Your task to perform on an android device: turn on sleep mode Image 0: 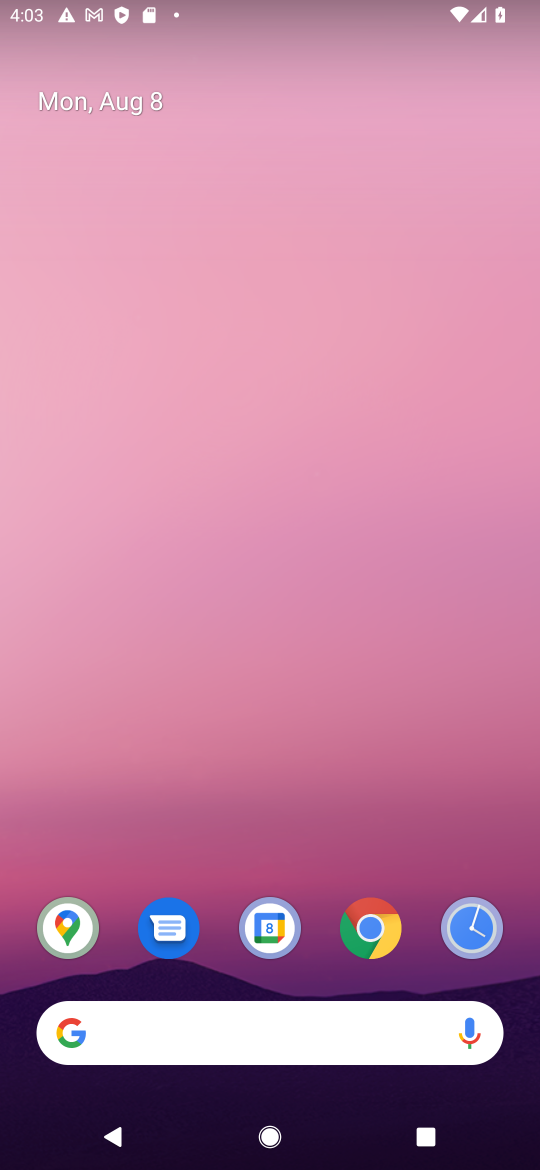
Step 0: drag from (369, 857) to (302, 31)
Your task to perform on an android device: turn on sleep mode Image 1: 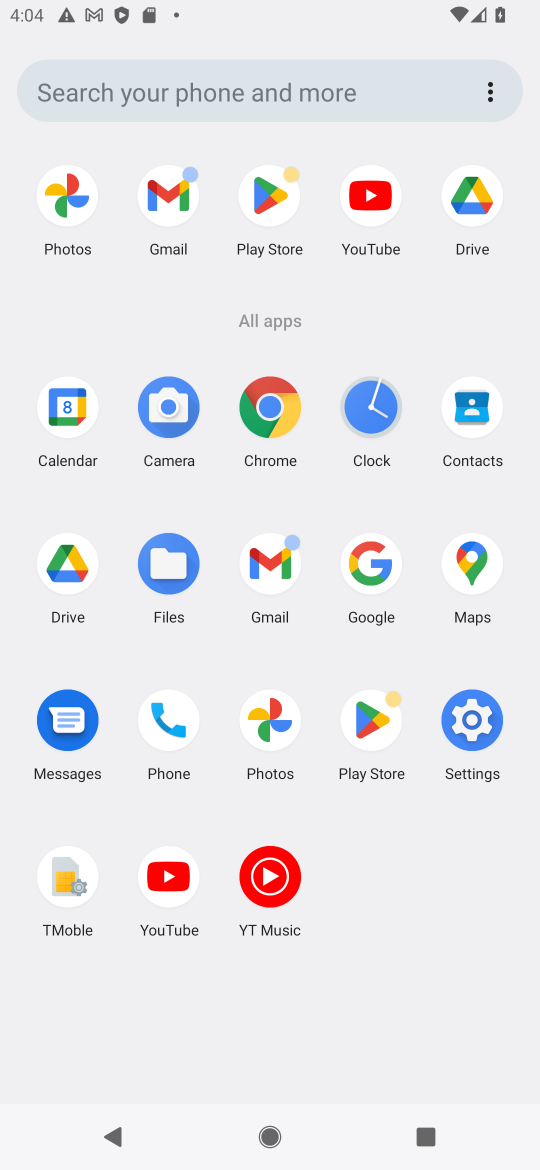
Step 1: click (490, 719)
Your task to perform on an android device: turn on sleep mode Image 2: 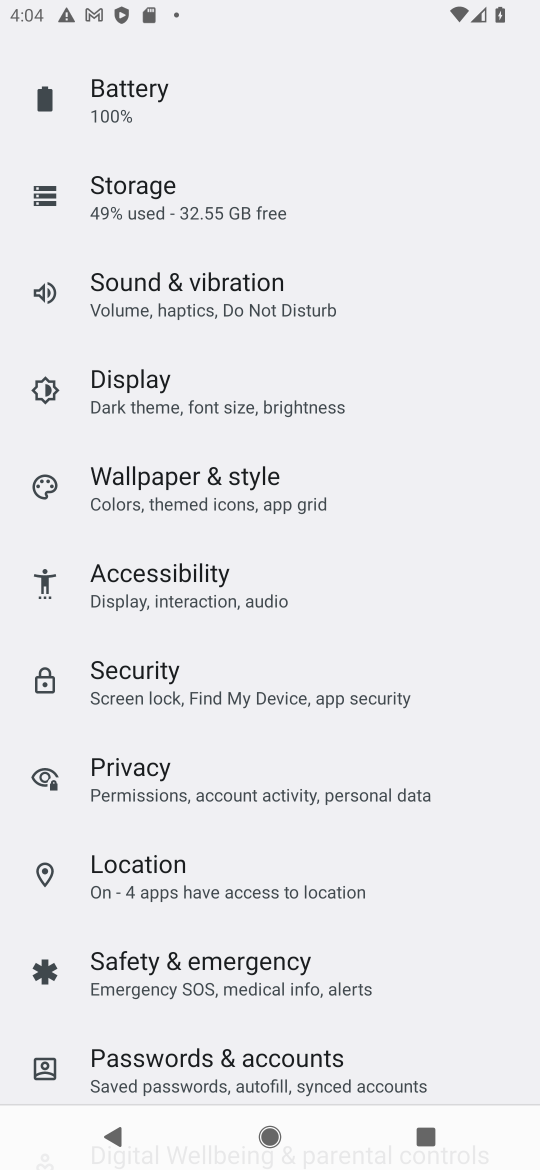
Step 2: click (292, 412)
Your task to perform on an android device: turn on sleep mode Image 3: 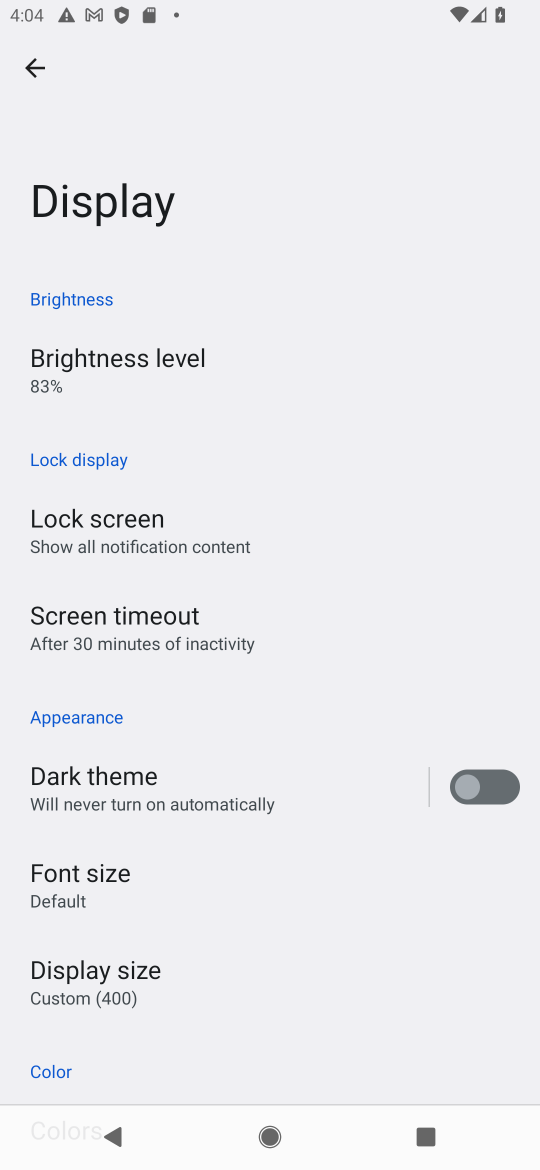
Step 3: task complete